Your task to perform on an android device: toggle notifications settings in the gmail app Image 0: 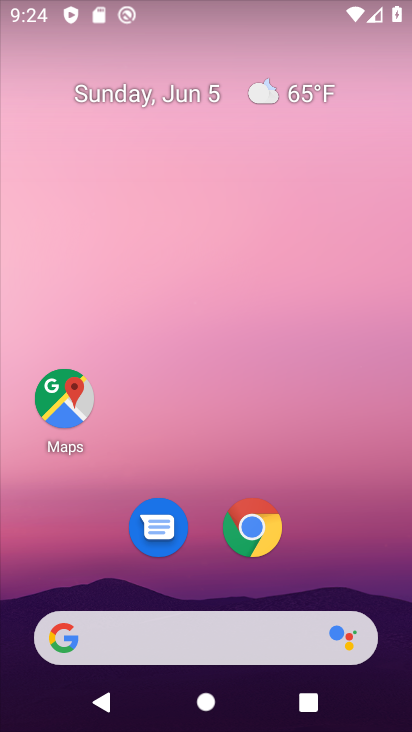
Step 0: drag from (214, 580) to (248, 35)
Your task to perform on an android device: toggle notifications settings in the gmail app Image 1: 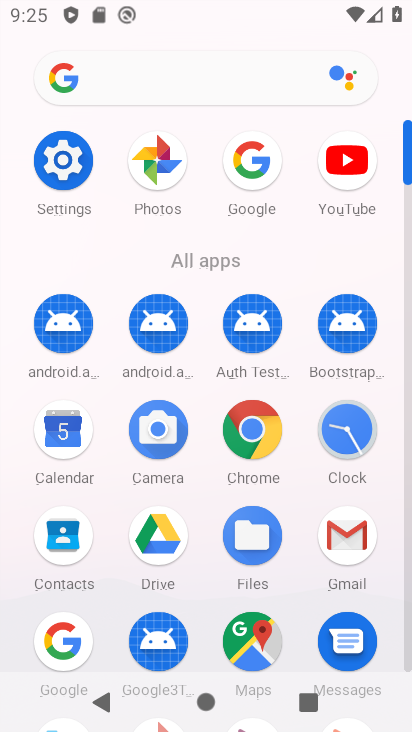
Step 1: click (354, 534)
Your task to perform on an android device: toggle notifications settings in the gmail app Image 2: 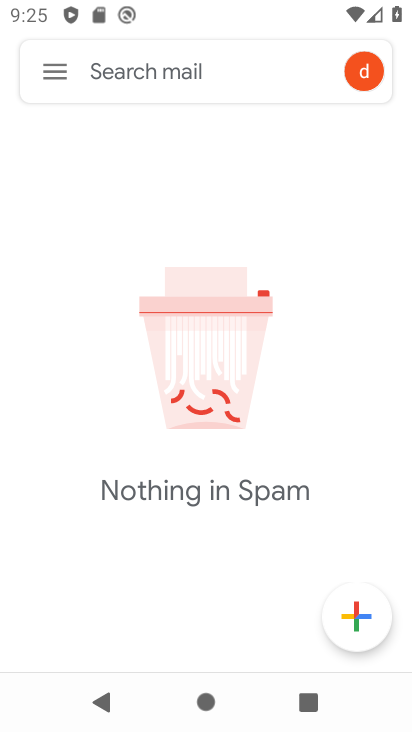
Step 2: click (61, 62)
Your task to perform on an android device: toggle notifications settings in the gmail app Image 3: 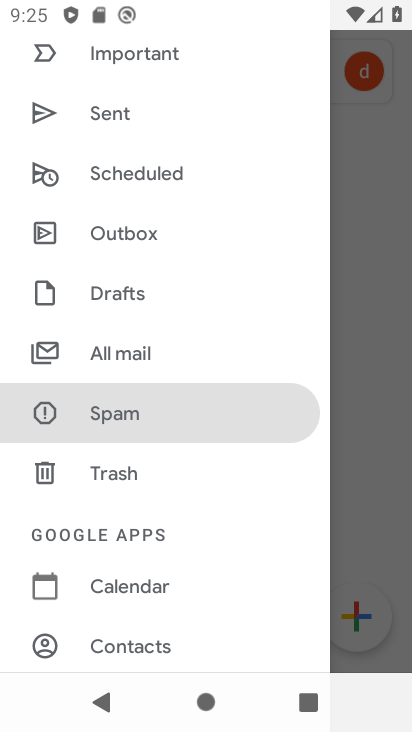
Step 3: drag from (230, 608) to (231, 88)
Your task to perform on an android device: toggle notifications settings in the gmail app Image 4: 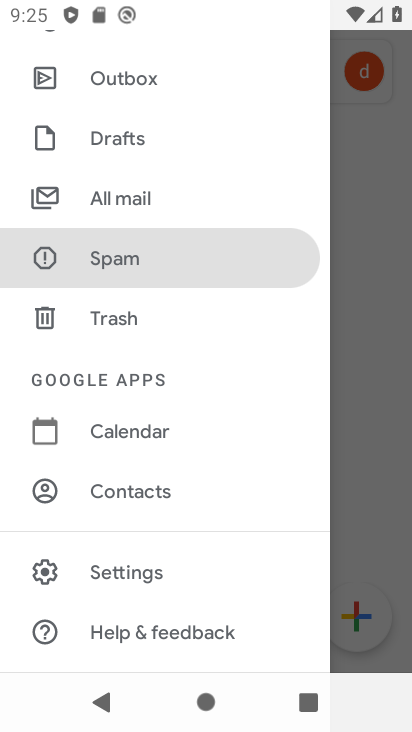
Step 4: click (144, 574)
Your task to perform on an android device: toggle notifications settings in the gmail app Image 5: 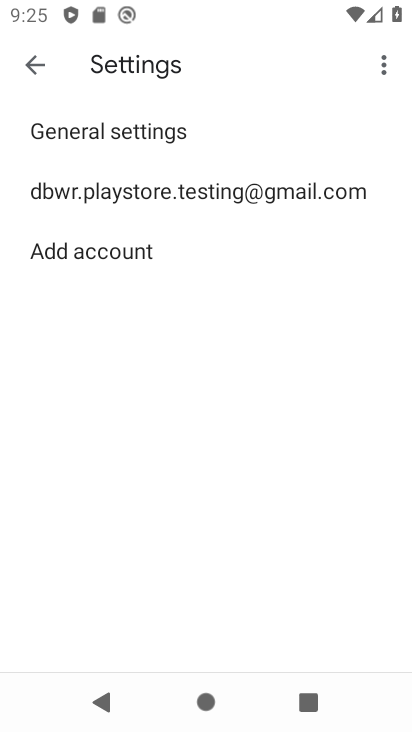
Step 5: click (114, 190)
Your task to perform on an android device: toggle notifications settings in the gmail app Image 6: 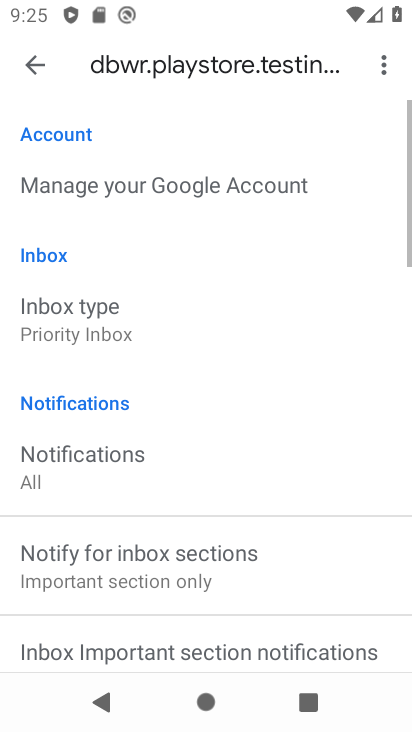
Step 6: drag from (146, 593) to (180, 154)
Your task to perform on an android device: toggle notifications settings in the gmail app Image 7: 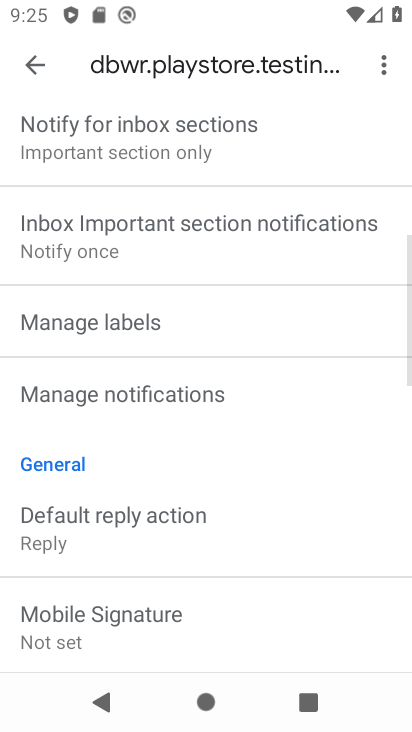
Step 7: click (146, 397)
Your task to perform on an android device: toggle notifications settings in the gmail app Image 8: 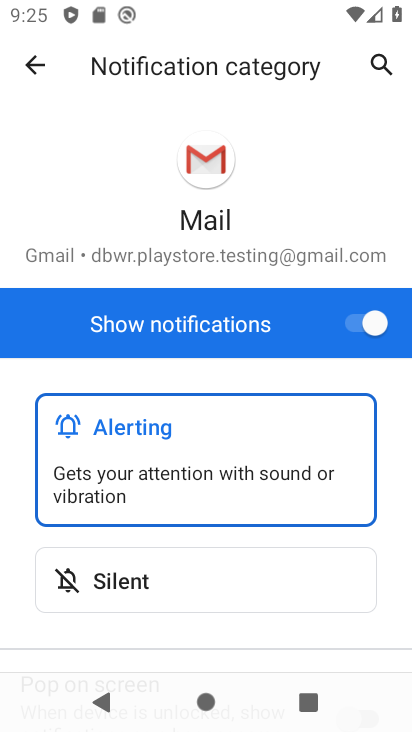
Step 8: click (373, 317)
Your task to perform on an android device: toggle notifications settings in the gmail app Image 9: 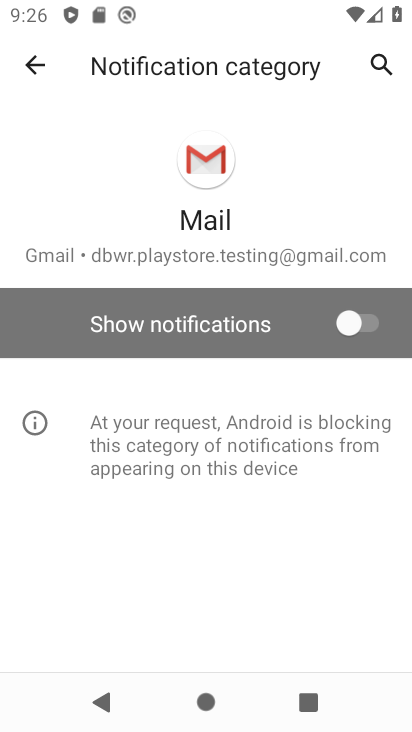
Step 9: task complete